Your task to perform on an android device: Go to eBay Image 0: 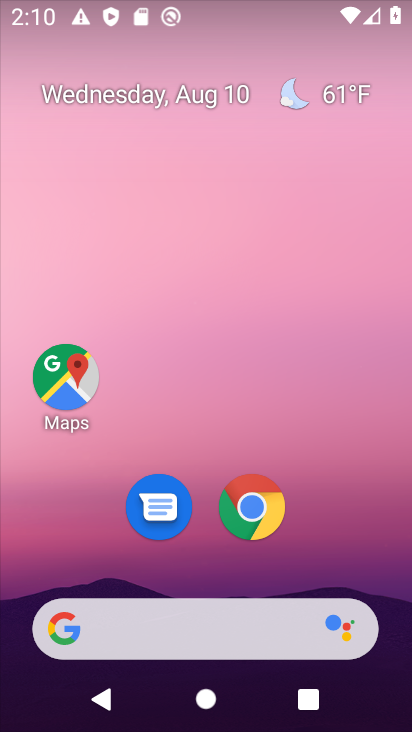
Step 0: drag from (327, 503) to (266, 16)
Your task to perform on an android device: Go to eBay Image 1: 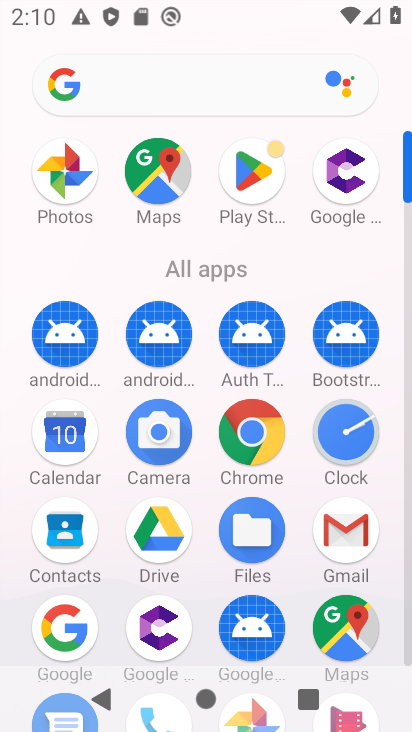
Step 1: click (253, 433)
Your task to perform on an android device: Go to eBay Image 2: 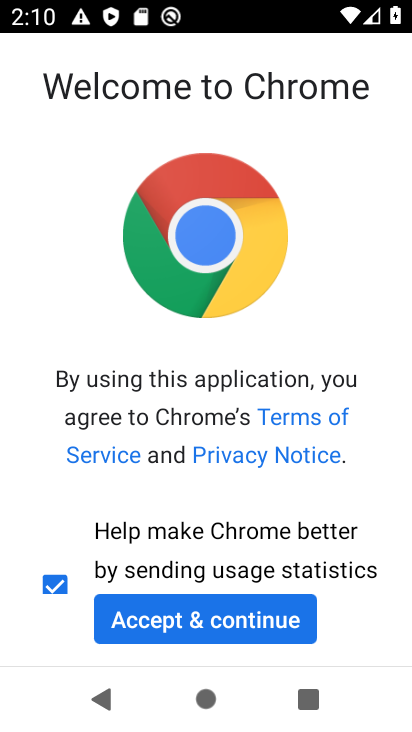
Step 2: click (234, 620)
Your task to perform on an android device: Go to eBay Image 3: 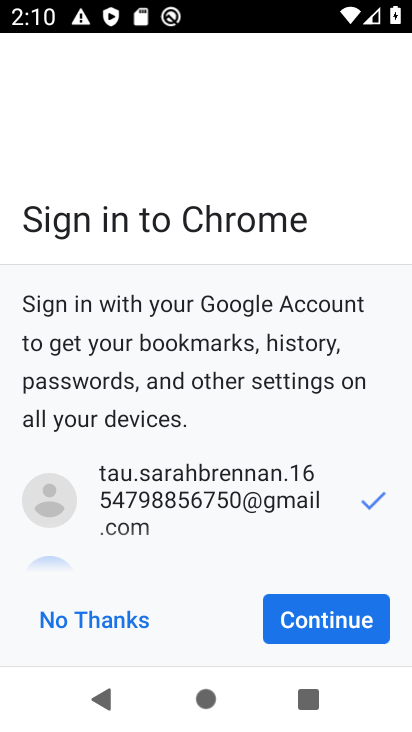
Step 3: click (234, 619)
Your task to perform on an android device: Go to eBay Image 4: 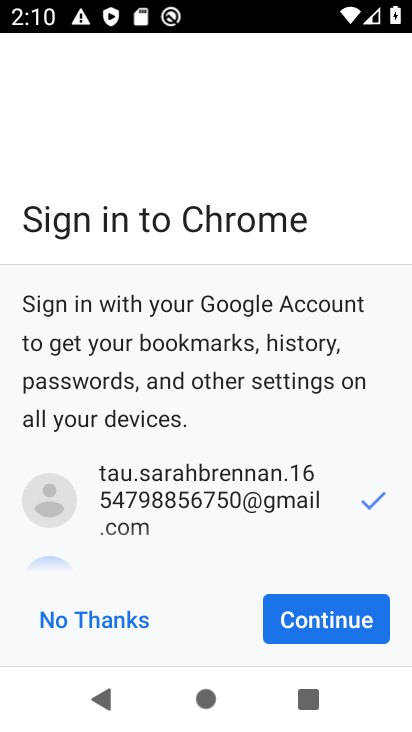
Step 4: click (276, 614)
Your task to perform on an android device: Go to eBay Image 5: 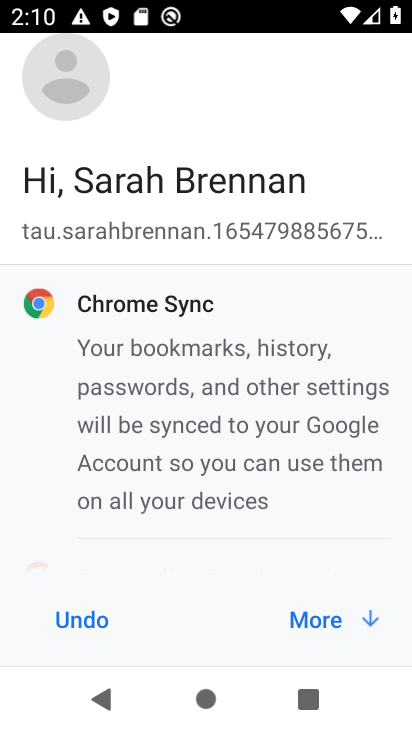
Step 5: click (338, 619)
Your task to perform on an android device: Go to eBay Image 6: 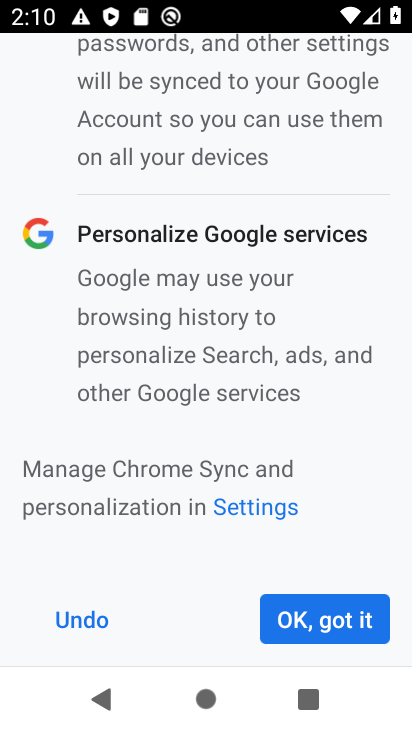
Step 6: click (323, 641)
Your task to perform on an android device: Go to eBay Image 7: 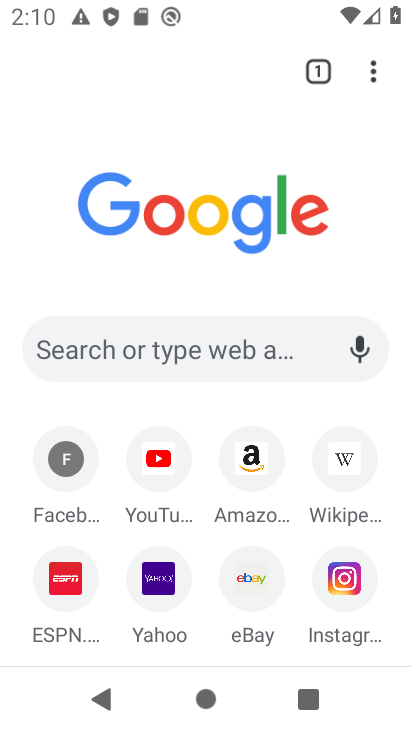
Step 7: click (258, 585)
Your task to perform on an android device: Go to eBay Image 8: 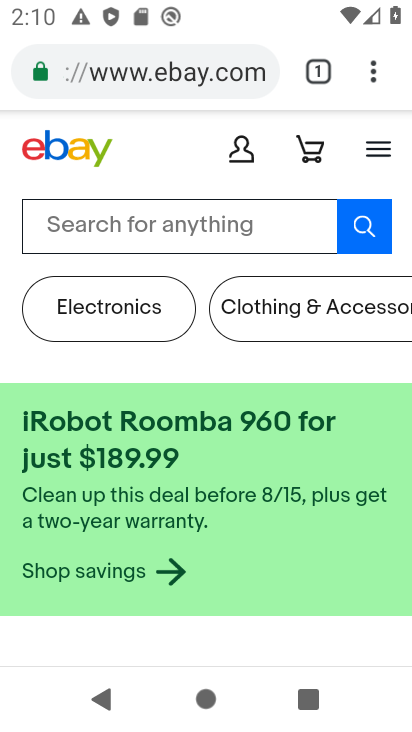
Step 8: task complete